Your task to perform on an android device: Open CNN.com Image 0: 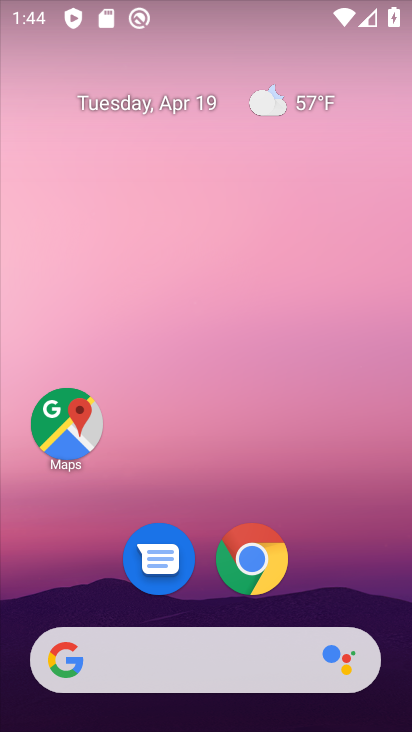
Step 0: click (238, 551)
Your task to perform on an android device: Open CNN.com Image 1: 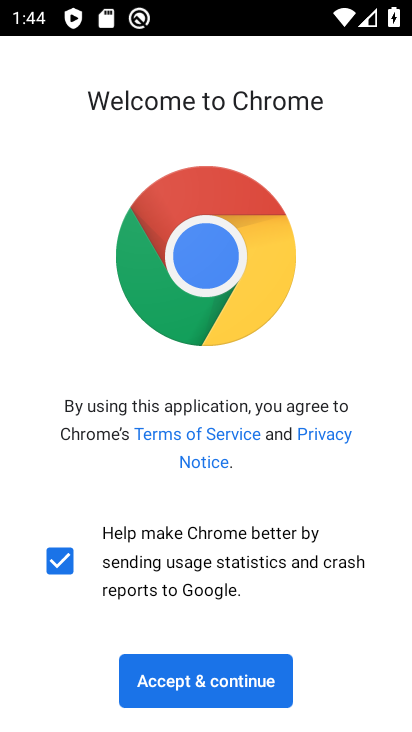
Step 1: click (213, 680)
Your task to perform on an android device: Open CNN.com Image 2: 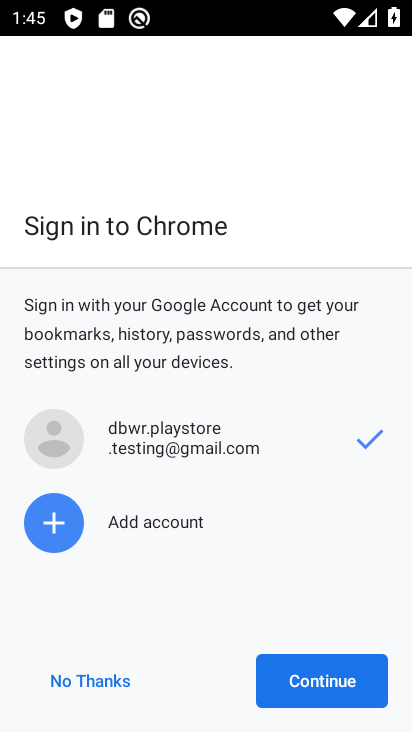
Step 2: click (319, 680)
Your task to perform on an android device: Open CNN.com Image 3: 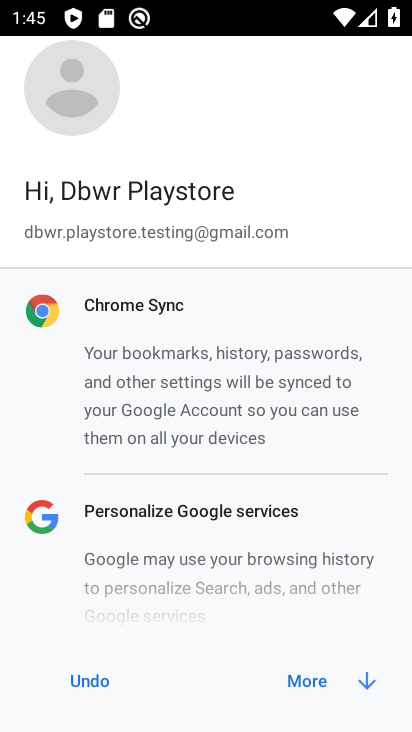
Step 3: click (318, 678)
Your task to perform on an android device: Open CNN.com Image 4: 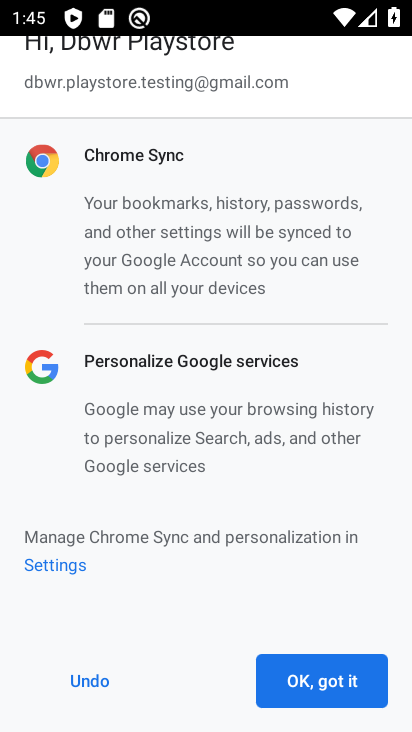
Step 4: click (318, 678)
Your task to perform on an android device: Open CNN.com Image 5: 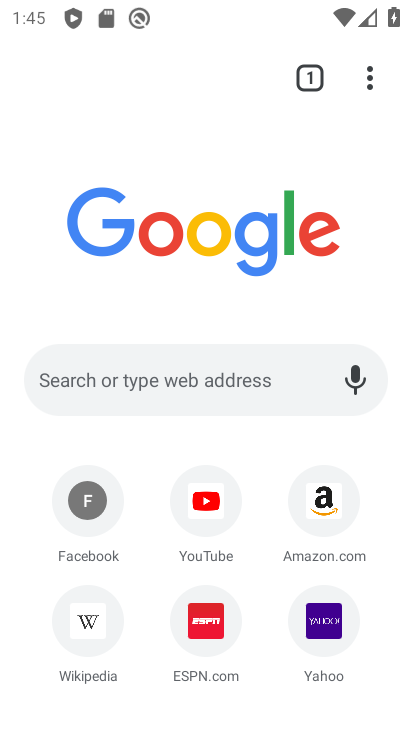
Step 5: click (177, 383)
Your task to perform on an android device: Open CNN.com Image 6: 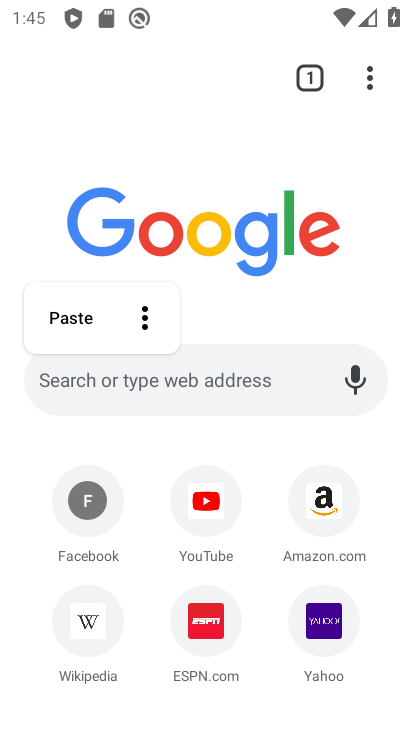
Step 6: type "cnn.com"
Your task to perform on an android device: Open CNN.com Image 7: 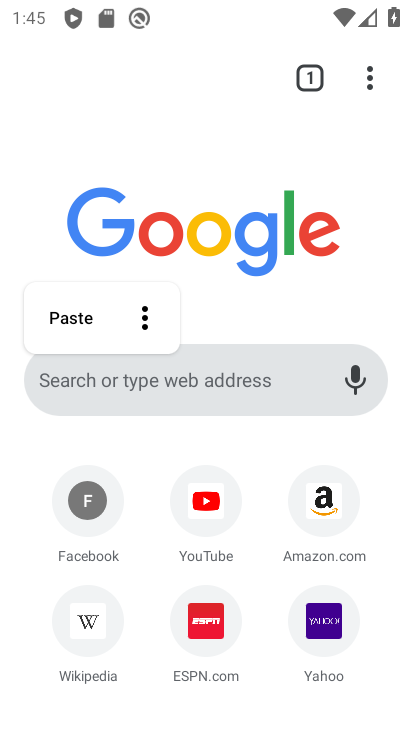
Step 7: click (144, 386)
Your task to perform on an android device: Open CNN.com Image 8: 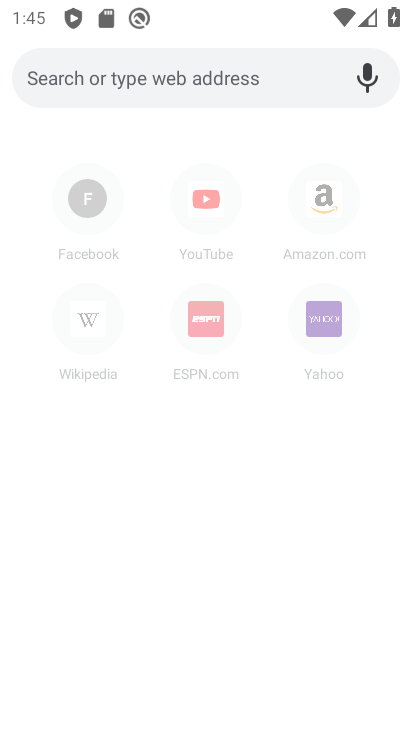
Step 8: click (151, 381)
Your task to perform on an android device: Open CNN.com Image 9: 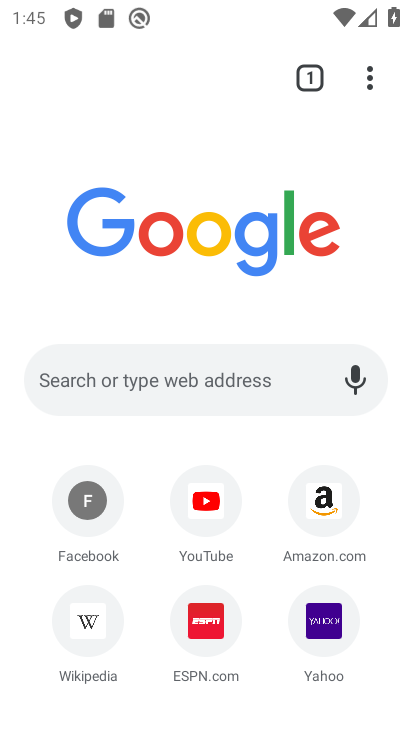
Step 9: click (116, 372)
Your task to perform on an android device: Open CNN.com Image 10: 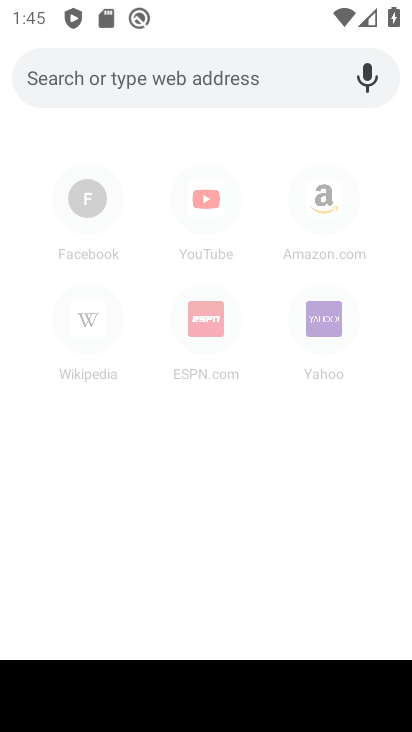
Step 10: click (111, 74)
Your task to perform on an android device: Open CNN.com Image 11: 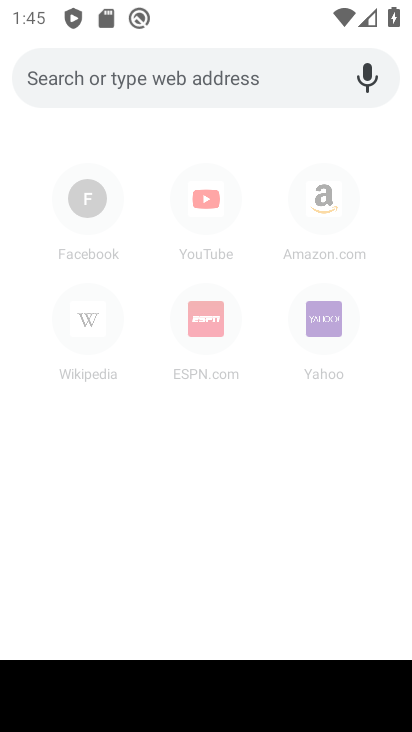
Step 11: type "cnn.com"
Your task to perform on an android device: Open CNN.com Image 12: 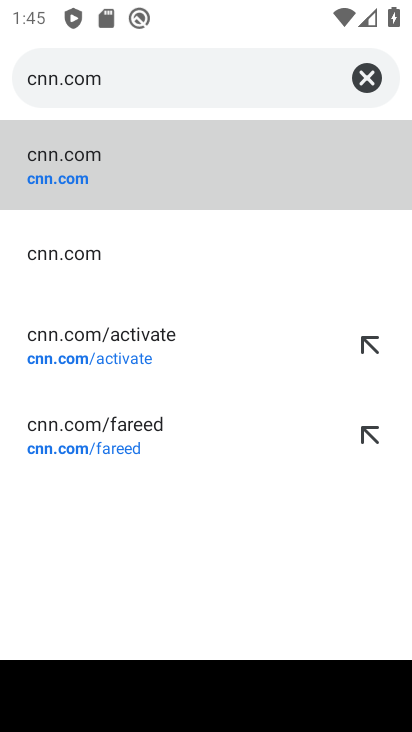
Step 12: click (76, 178)
Your task to perform on an android device: Open CNN.com Image 13: 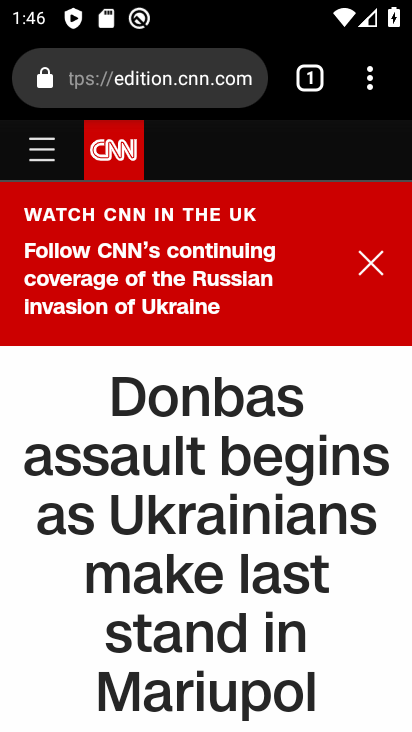
Step 13: task complete